Your task to perform on an android device: change notification settings in the gmail app Image 0: 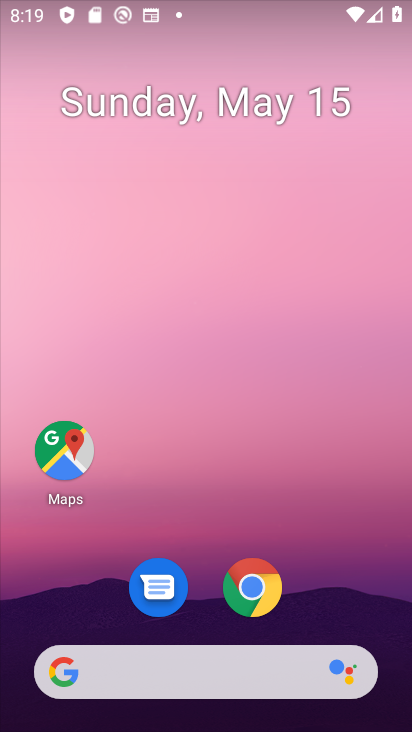
Step 0: drag from (355, 599) to (243, 51)
Your task to perform on an android device: change notification settings in the gmail app Image 1: 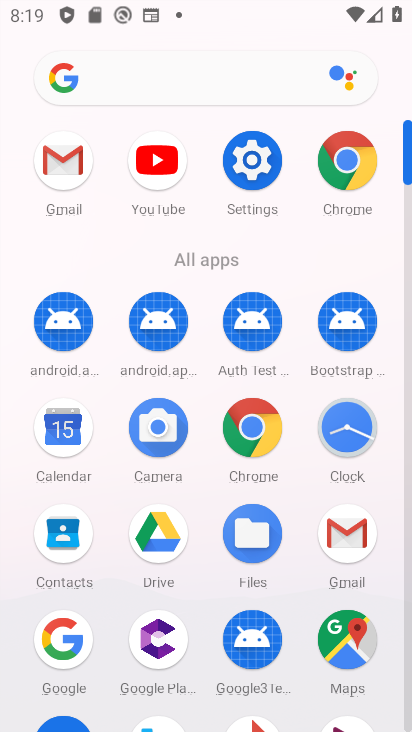
Step 1: click (354, 526)
Your task to perform on an android device: change notification settings in the gmail app Image 2: 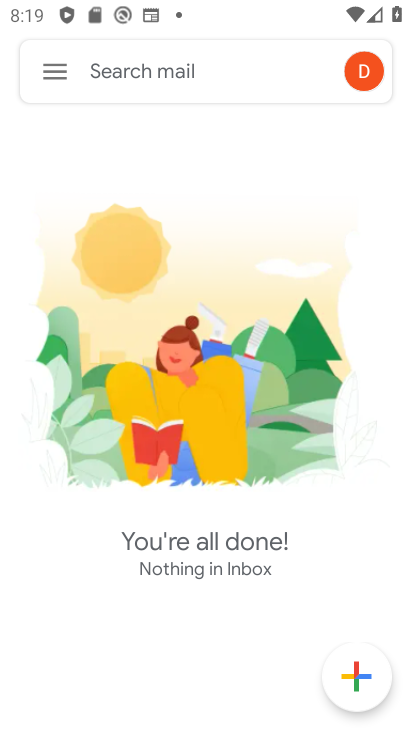
Step 2: click (57, 82)
Your task to perform on an android device: change notification settings in the gmail app Image 3: 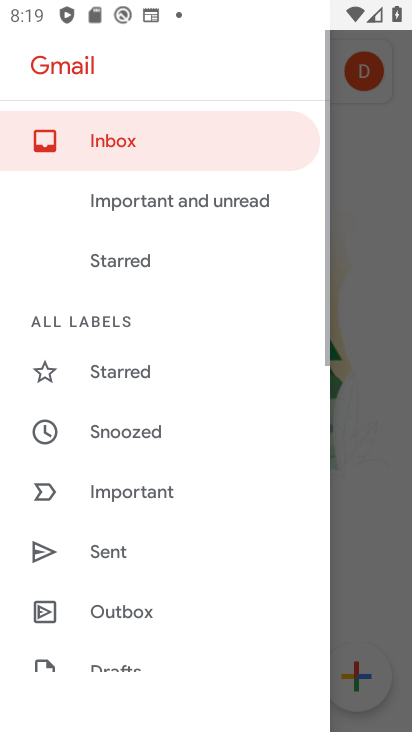
Step 3: drag from (131, 618) to (177, 130)
Your task to perform on an android device: change notification settings in the gmail app Image 4: 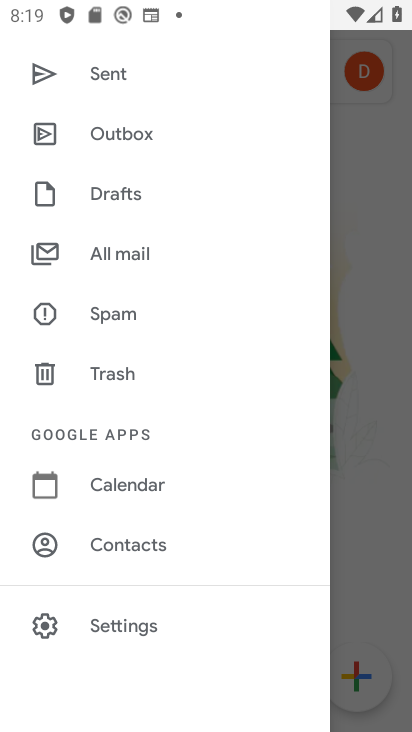
Step 4: click (134, 632)
Your task to perform on an android device: change notification settings in the gmail app Image 5: 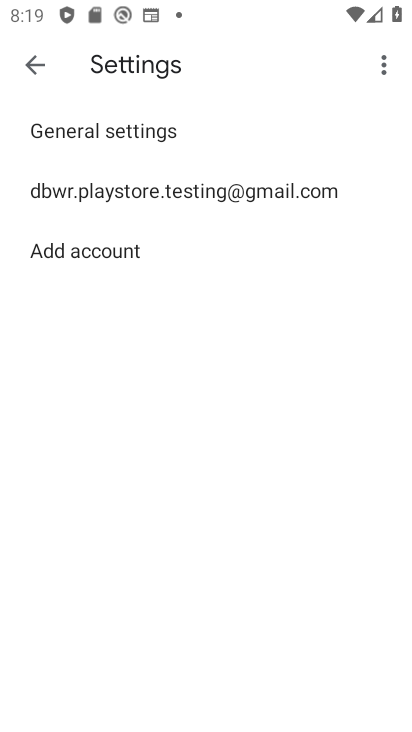
Step 5: click (153, 211)
Your task to perform on an android device: change notification settings in the gmail app Image 6: 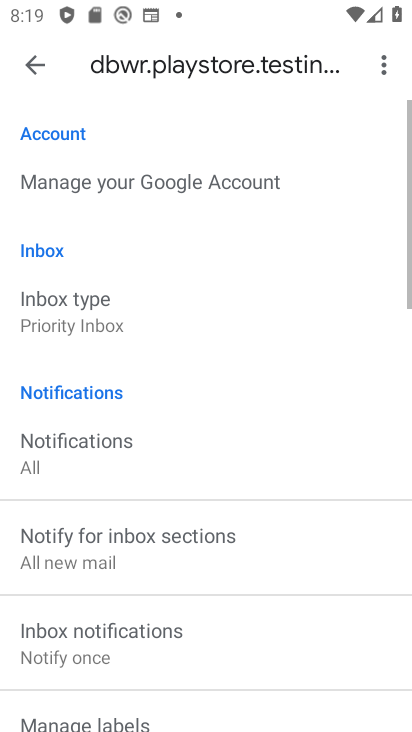
Step 6: click (128, 450)
Your task to perform on an android device: change notification settings in the gmail app Image 7: 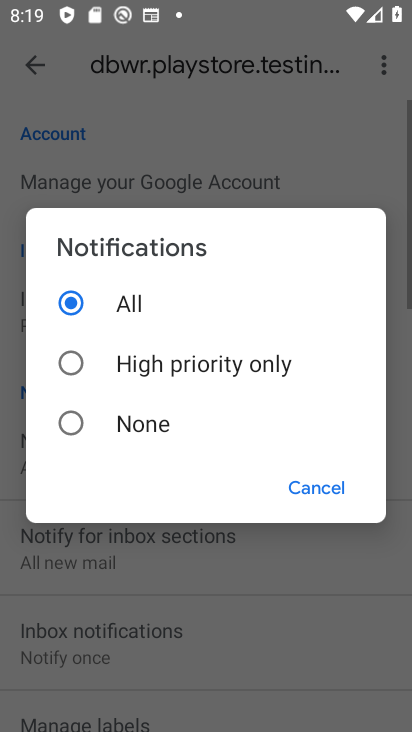
Step 7: click (137, 408)
Your task to perform on an android device: change notification settings in the gmail app Image 8: 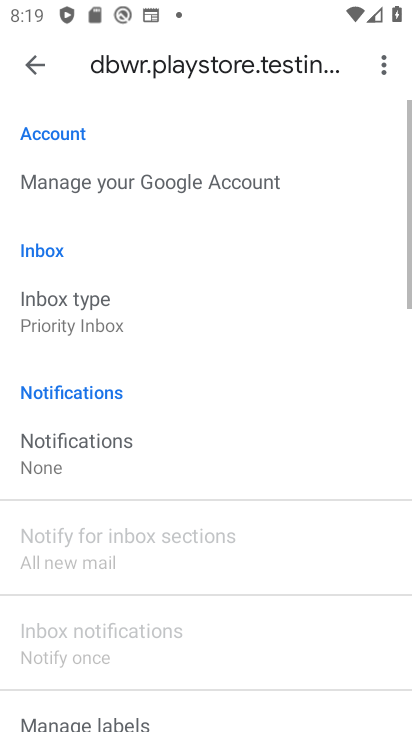
Step 8: task complete